Your task to perform on an android device: turn smart compose on in the gmail app Image 0: 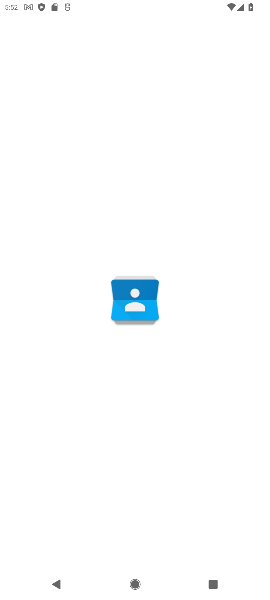
Step 0: press home button
Your task to perform on an android device: turn smart compose on in the gmail app Image 1: 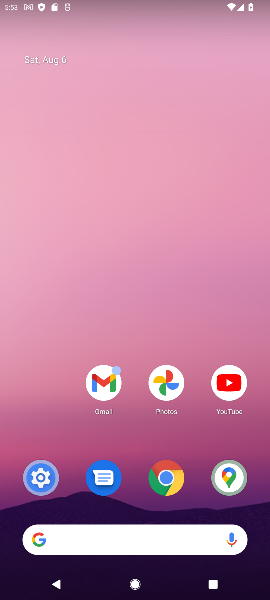
Step 1: press home button
Your task to perform on an android device: turn smart compose on in the gmail app Image 2: 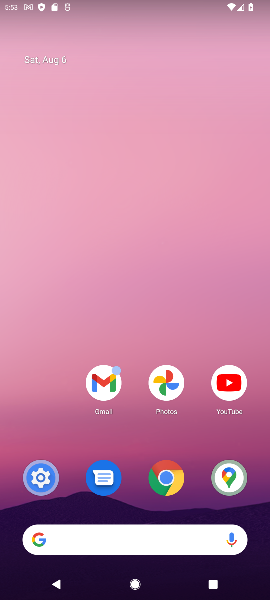
Step 2: click (103, 375)
Your task to perform on an android device: turn smart compose on in the gmail app Image 3: 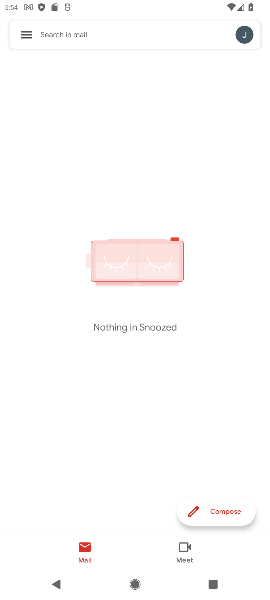
Step 3: click (32, 33)
Your task to perform on an android device: turn smart compose on in the gmail app Image 4: 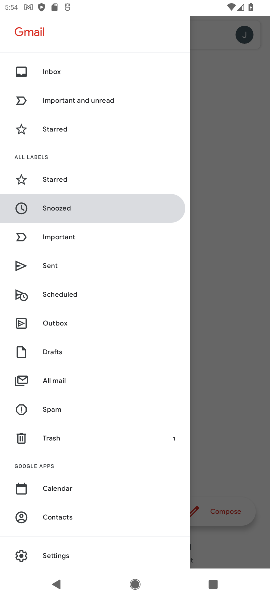
Step 4: click (59, 556)
Your task to perform on an android device: turn smart compose on in the gmail app Image 5: 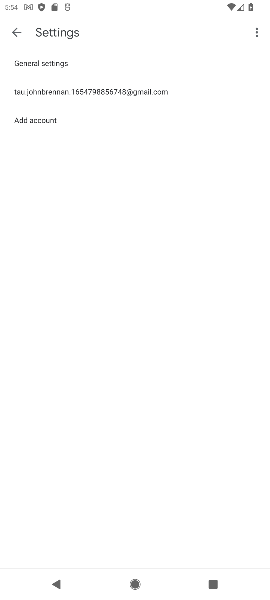
Step 5: click (68, 95)
Your task to perform on an android device: turn smart compose on in the gmail app Image 6: 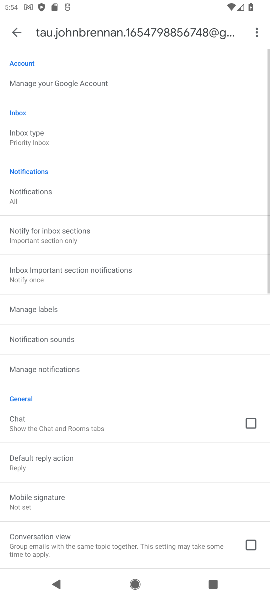
Step 6: task complete